Your task to perform on an android device: change the clock display to analog Image 0: 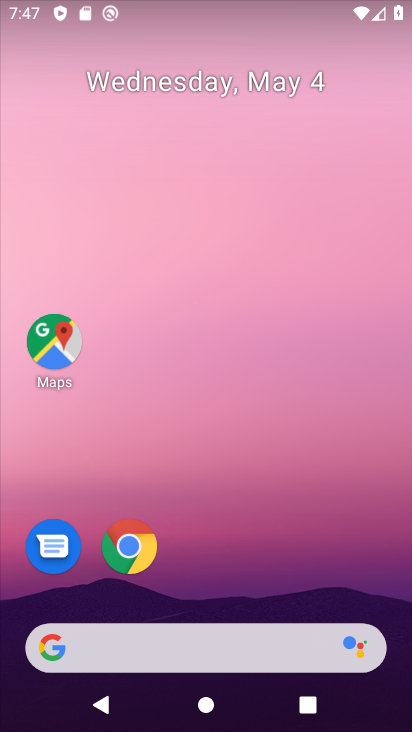
Step 0: drag from (320, 576) to (268, 22)
Your task to perform on an android device: change the clock display to analog Image 1: 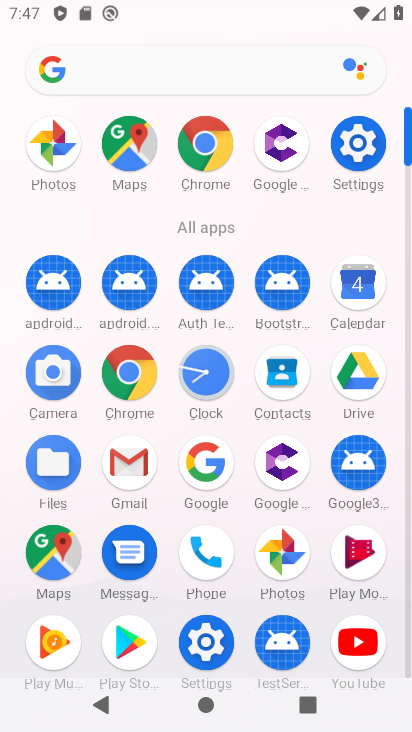
Step 1: click (195, 376)
Your task to perform on an android device: change the clock display to analog Image 2: 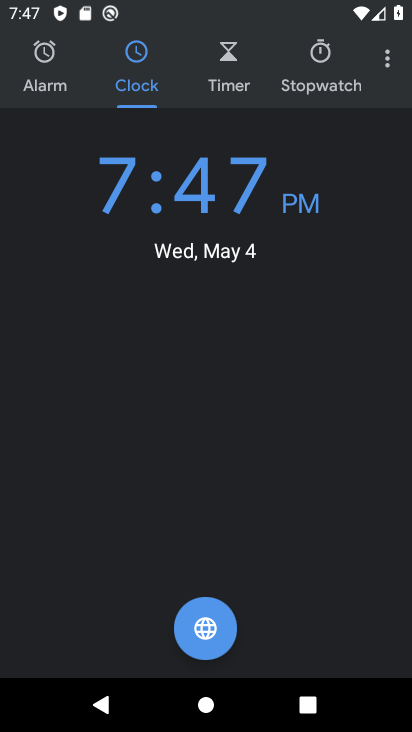
Step 2: click (385, 56)
Your task to perform on an android device: change the clock display to analog Image 3: 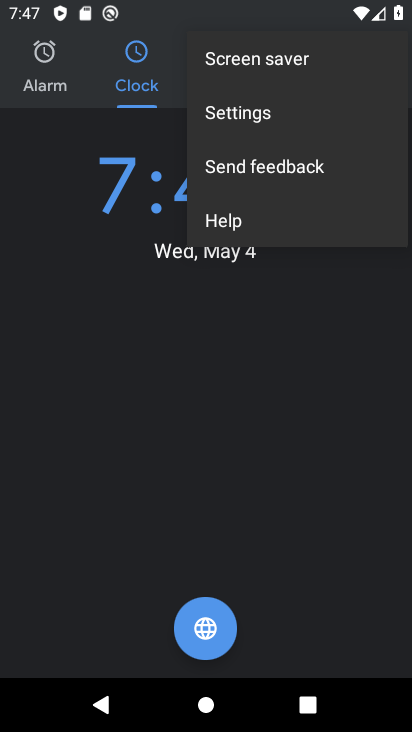
Step 3: click (241, 105)
Your task to perform on an android device: change the clock display to analog Image 4: 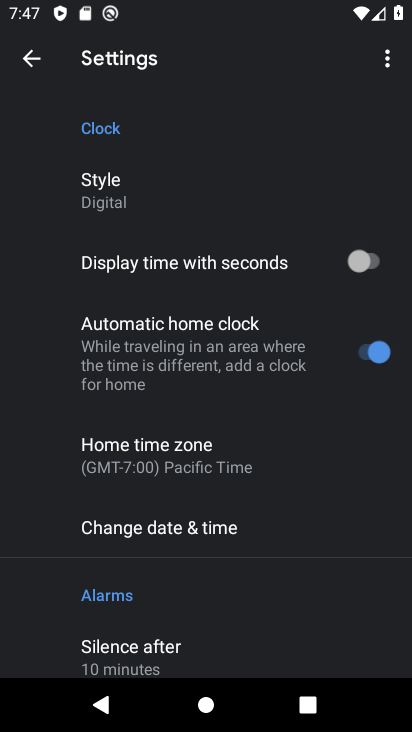
Step 4: click (158, 194)
Your task to perform on an android device: change the clock display to analog Image 5: 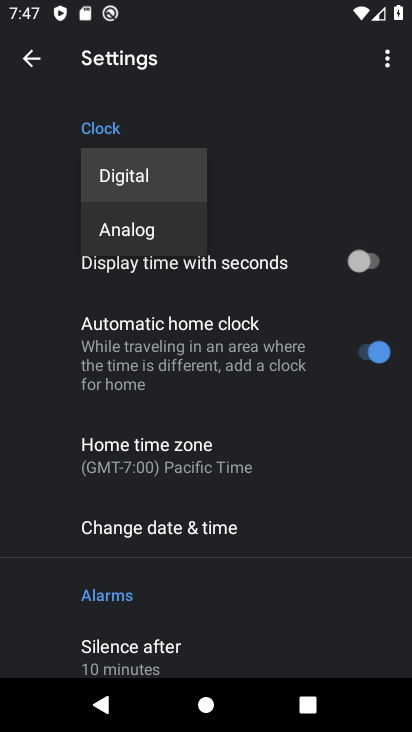
Step 5: click (147, 243)
Your task to perform on an android device: change the clock display to analog Image 6: 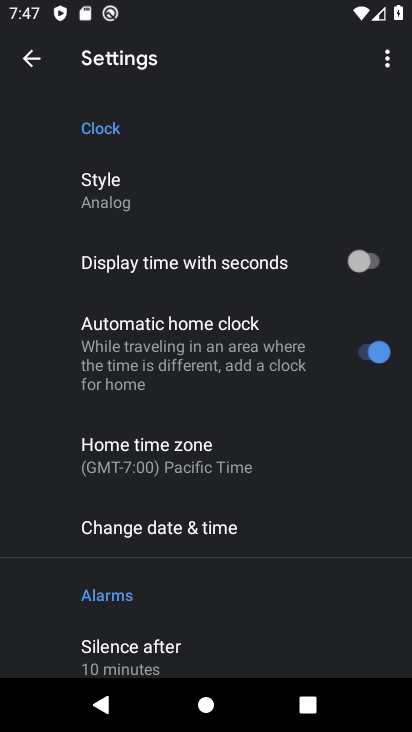
Step 6: task complete